Your task to perform on an android device: turn off picture-in-picture Image 0: 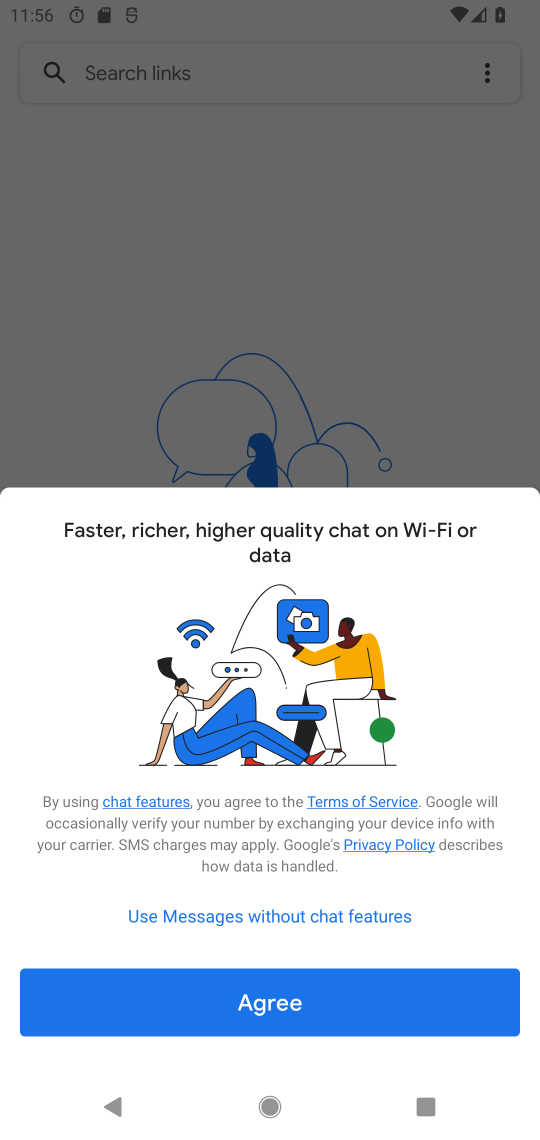
Step 0: press home button
Your task to perform on an android device: turn off picture-in-picture Image 1: 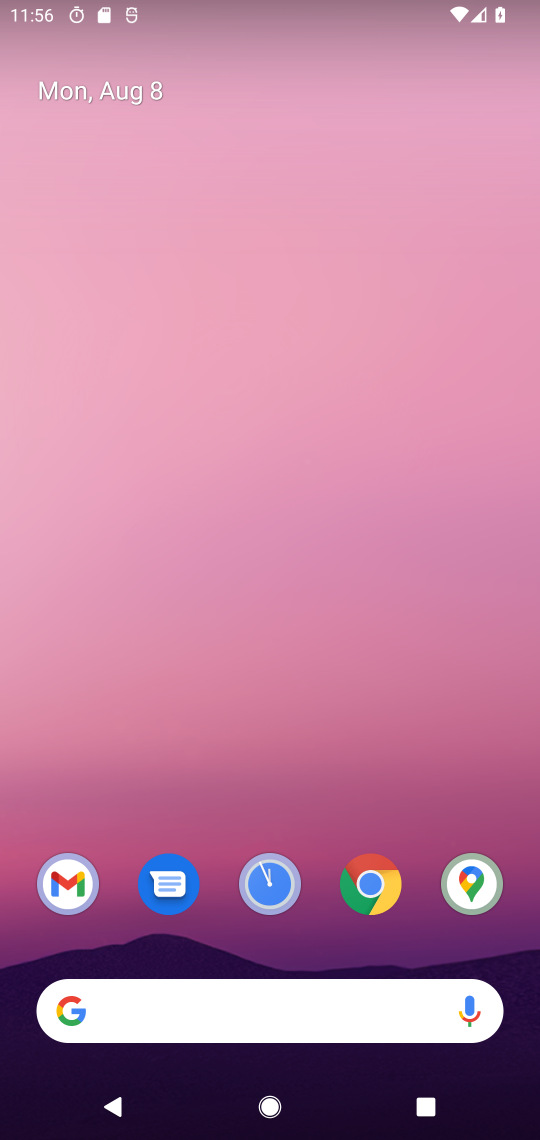
Step 1: drag from (266, 908) to (276, 64)
Your task to perform on an android device: turn off picture-in-picture Image 2: 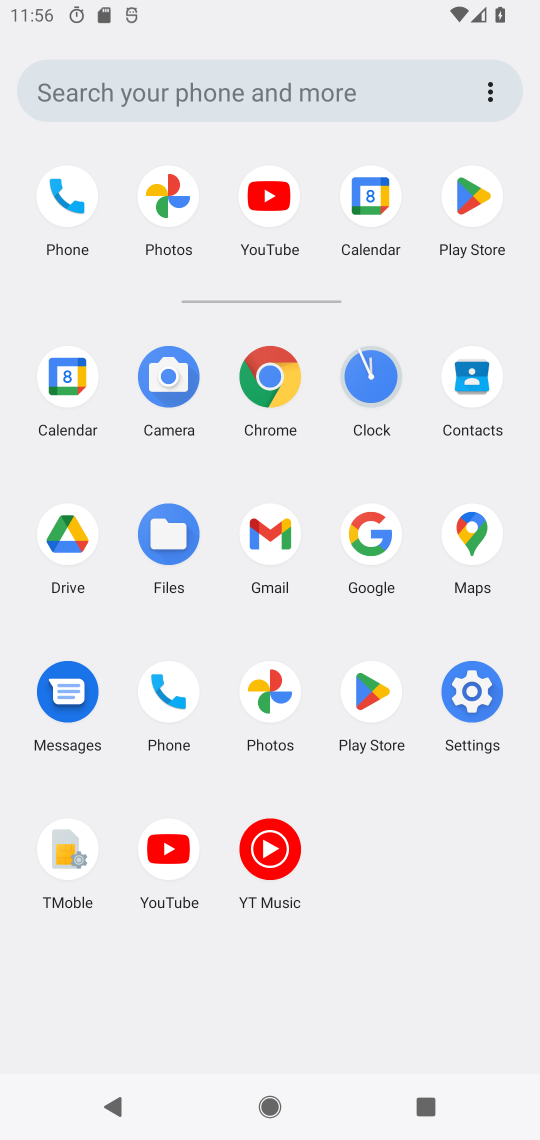
Step 2: click (477, 690)
Your task to perform on an android device: turn off picture-in-picture Image 3: 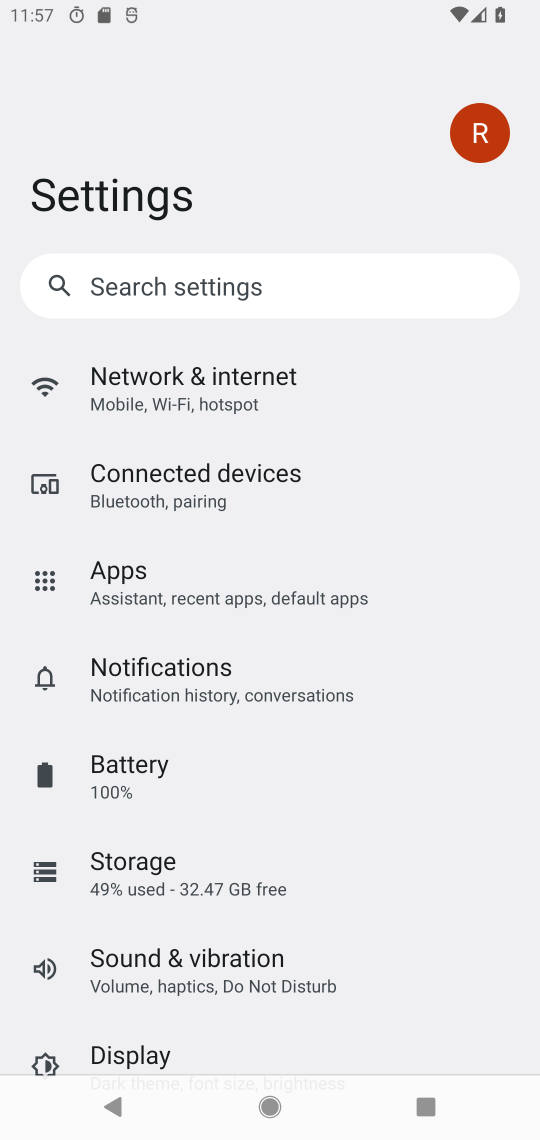
Step 3: click (174, 592)
Your task to perform on an android device: turn off picture-in-picture Image 4: 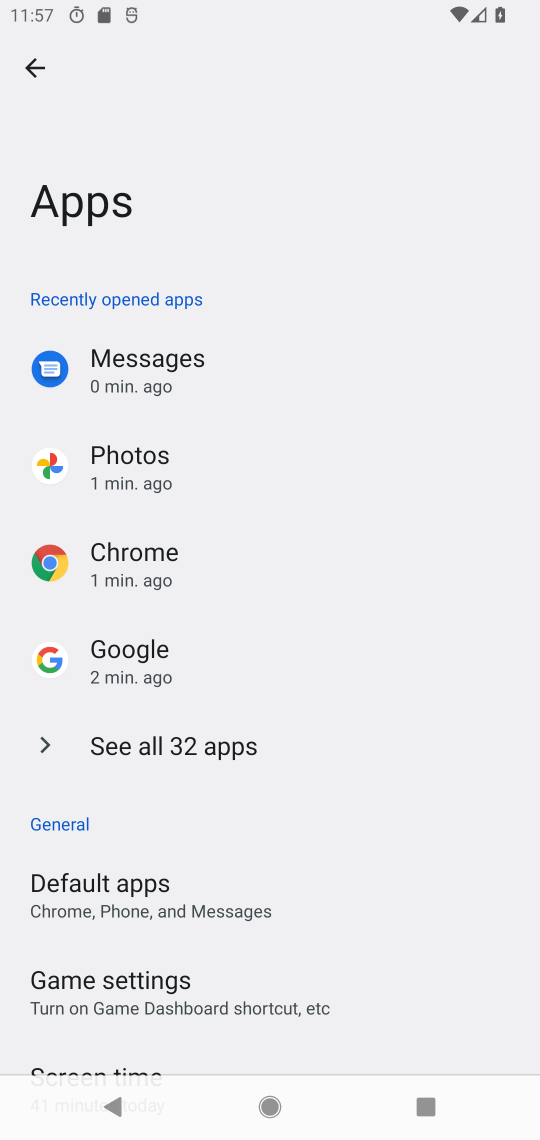
Step 4: drag from (241, 993) to (241, 569)
Your task to perform on an android device: turn off picture-in-picture Image 5: 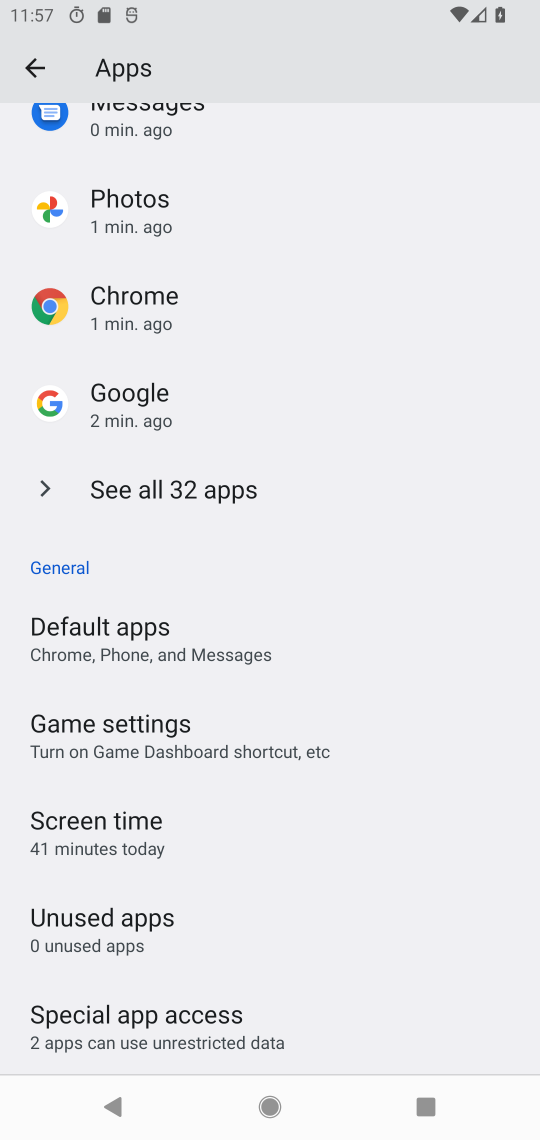
Step 5: click (195, 1037)
Your task to perform on an android device: turn off picture-in-picture Image 6: 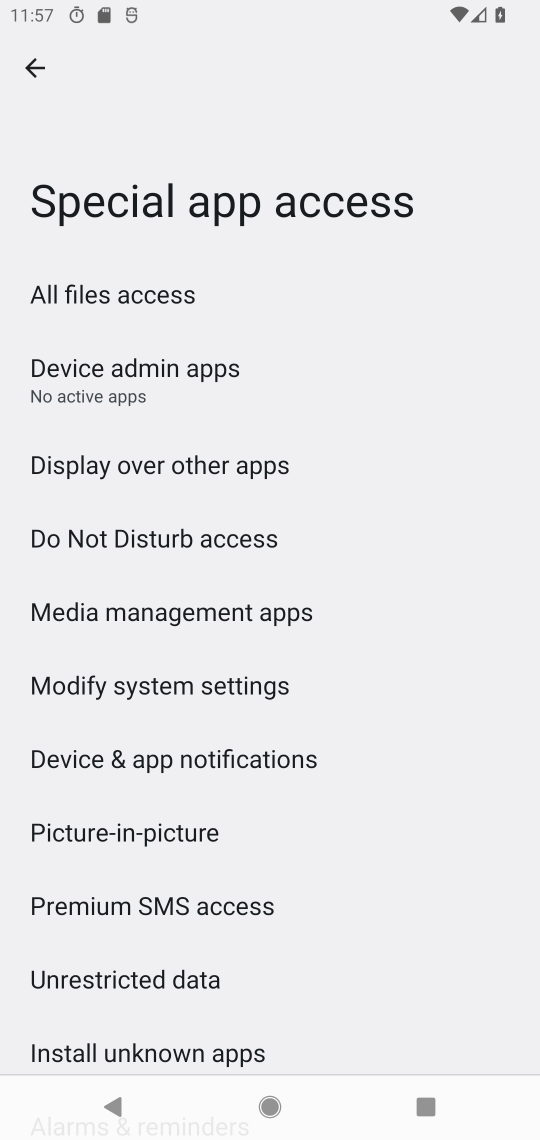
Step 6: click (177, 833)
Your task to perform on an android device: turn off picture-in-picture Image 7: 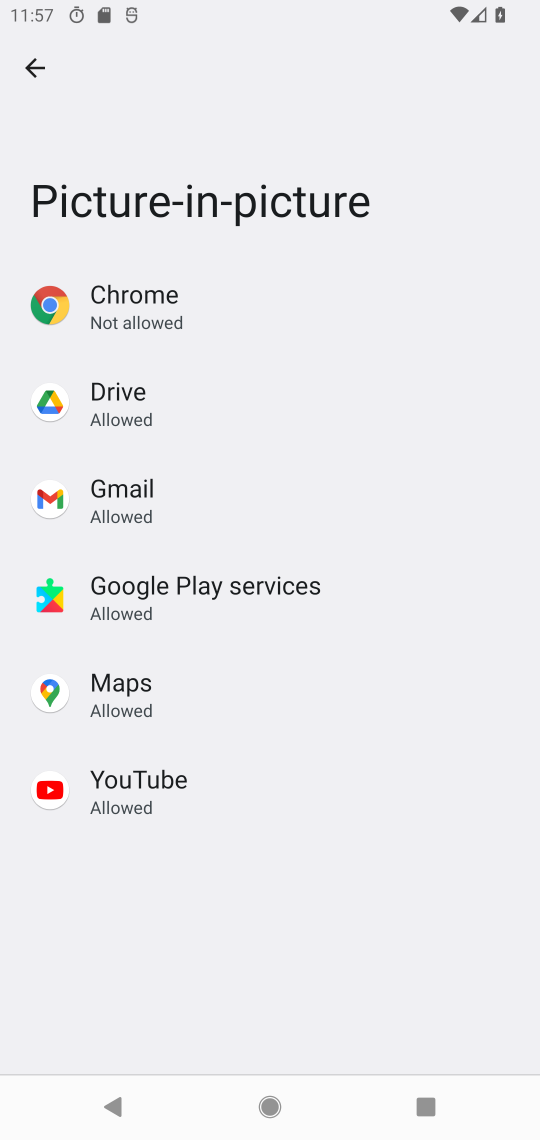
Step 7: click (144, 317)
Your task to perform on an android device: turn off picture-in-picture Image 8: 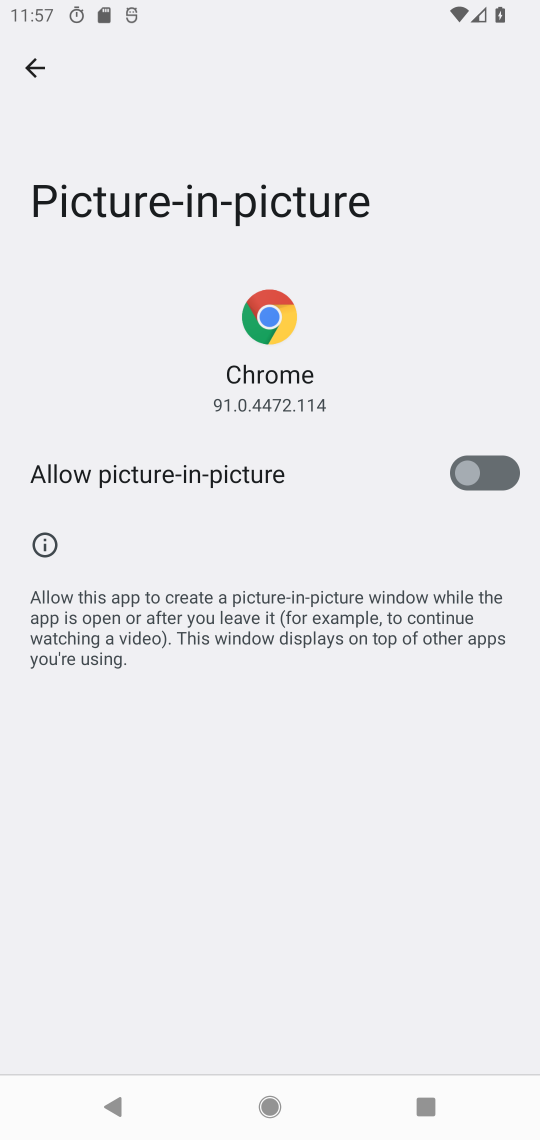
Step 8: task complete